Your task to perform on an android device: Check out the new nike air max 2020. Image 0: 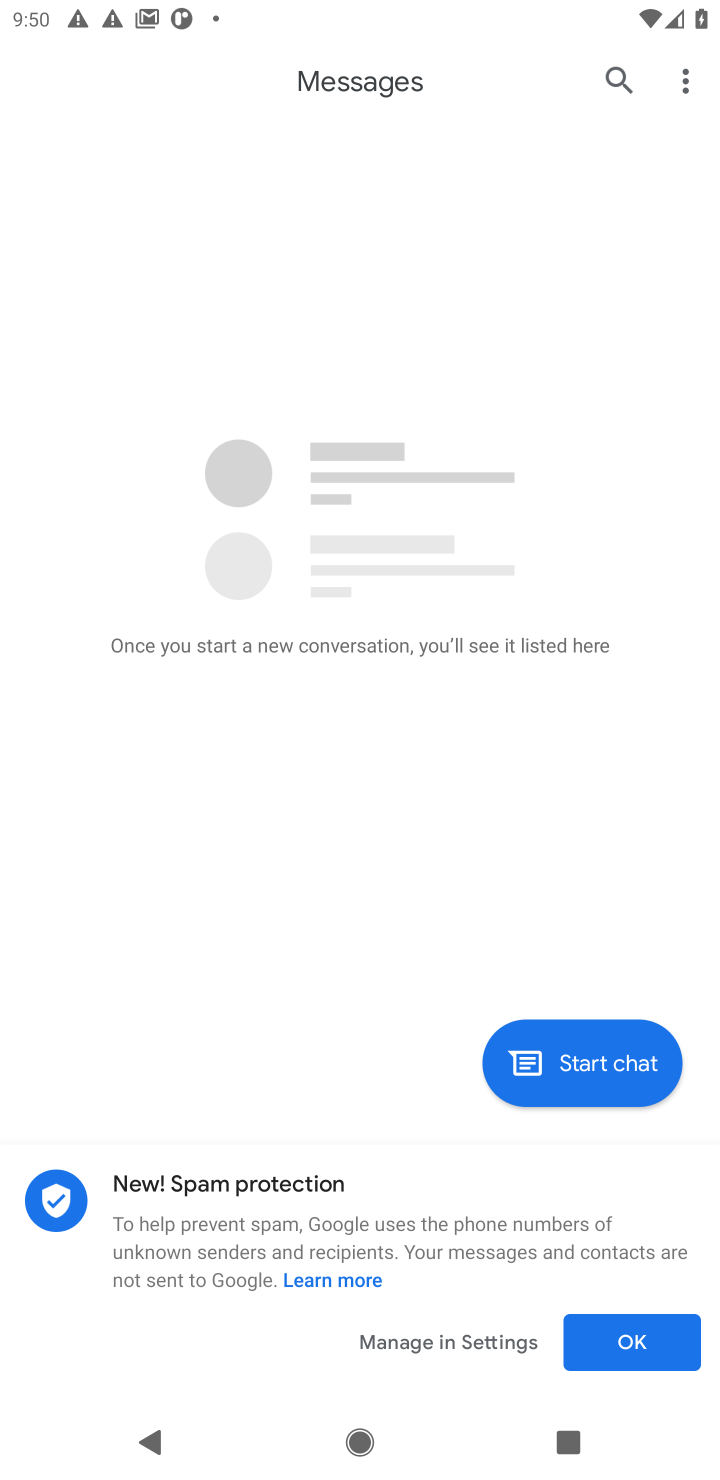
Step 0: press home button
Your task to perform on an android device: Check out the new nike air max 2020. Image 1: 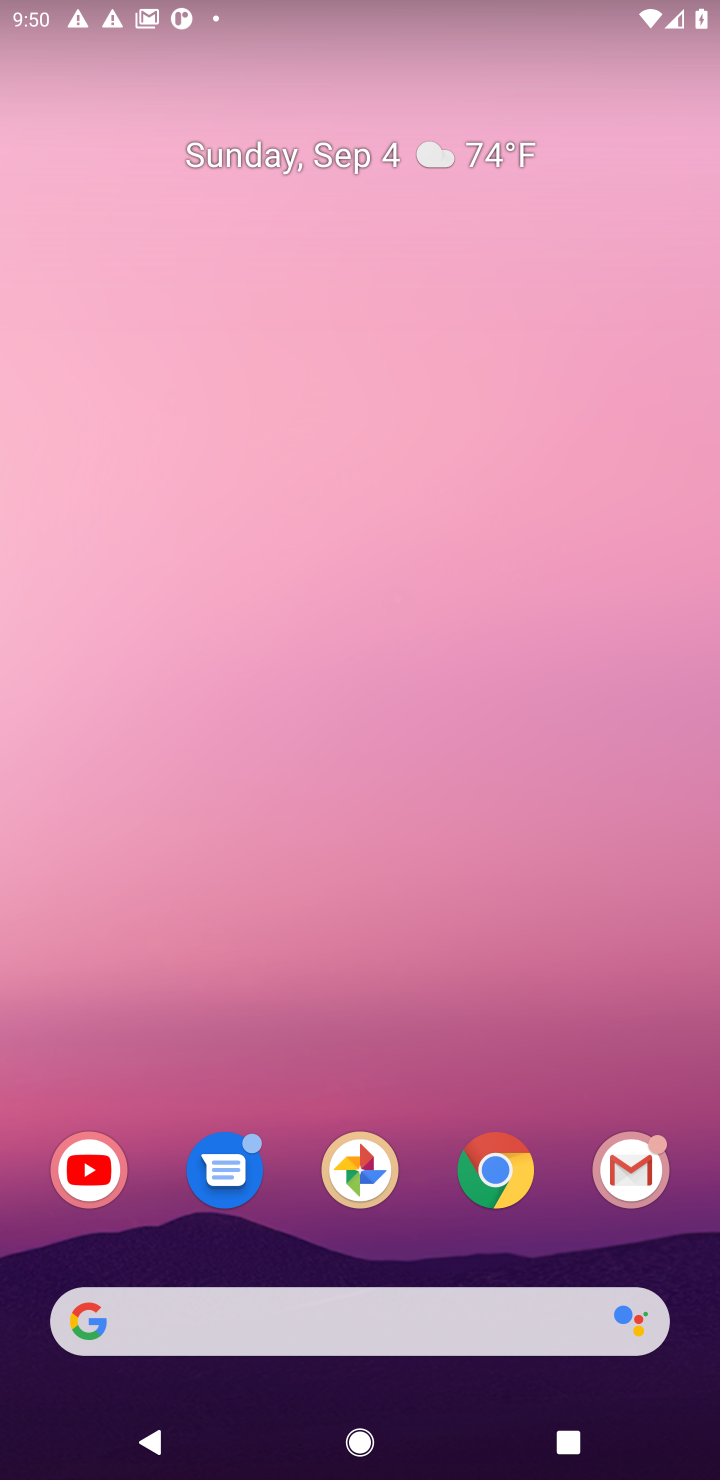
Step 1: click (513, 1176)
Your task to perform on an android device: Check out the new nike air max 2020. Image 2: 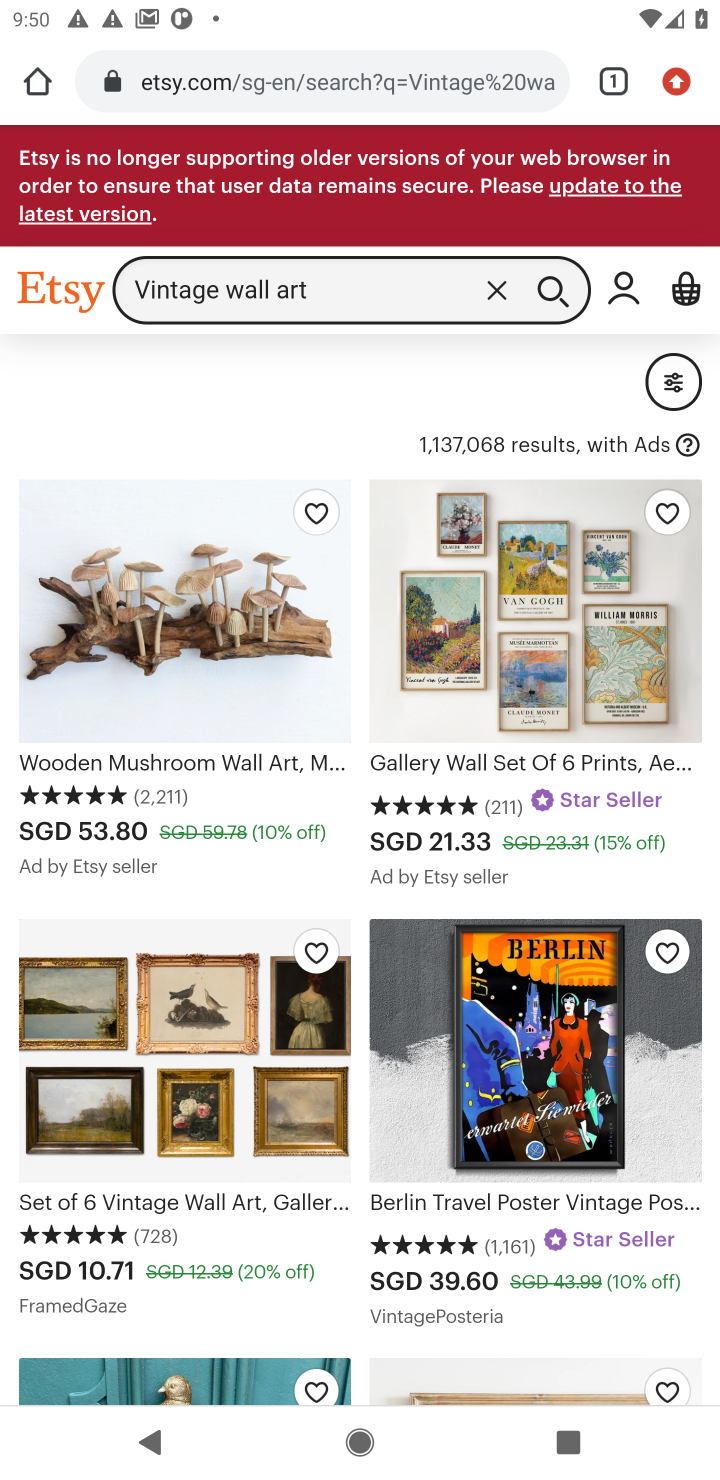
Step 2: click (390, 74)
Your task to perform on an android device: Check out the new nike air max 2020. Image 3: 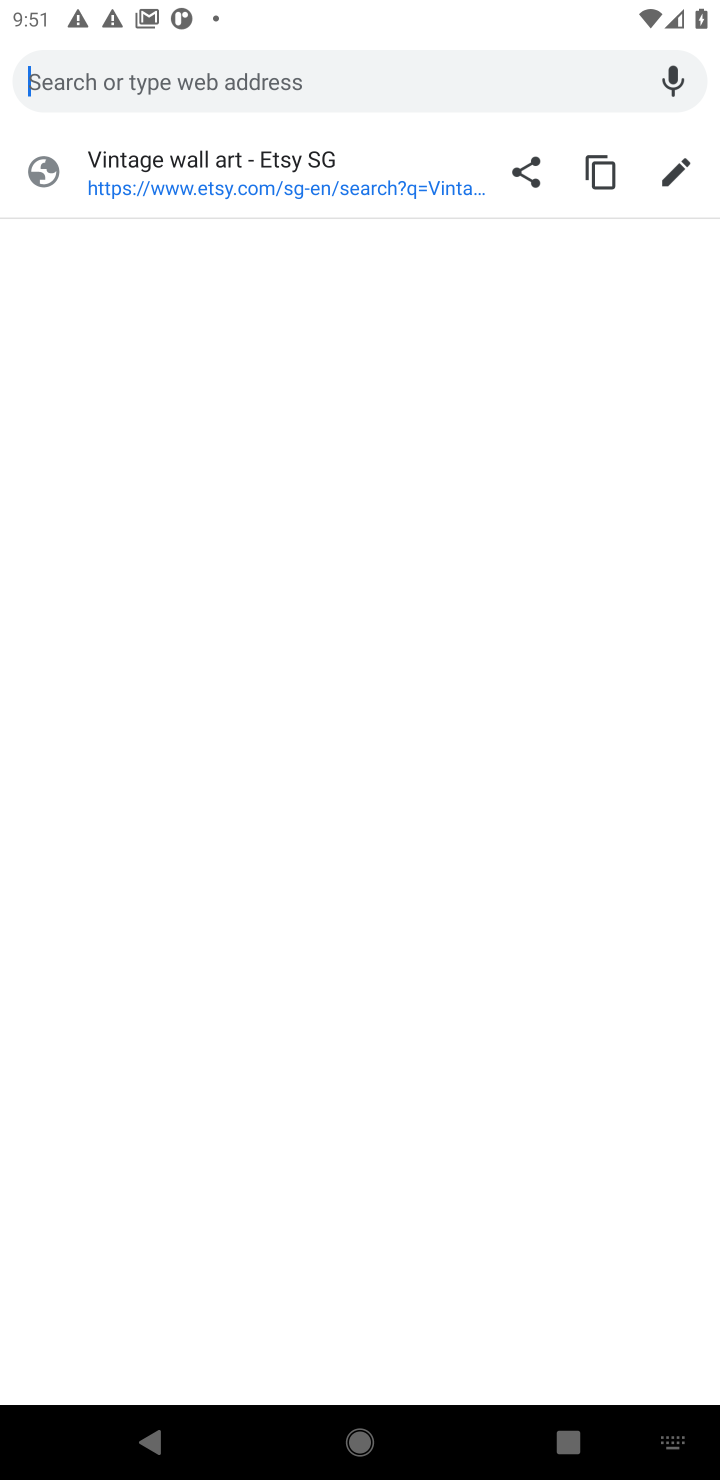
Step 3: type "the new nike air max 2020"
Your task to perform on an android device: Check out the new nike air max 2020. Image 4: 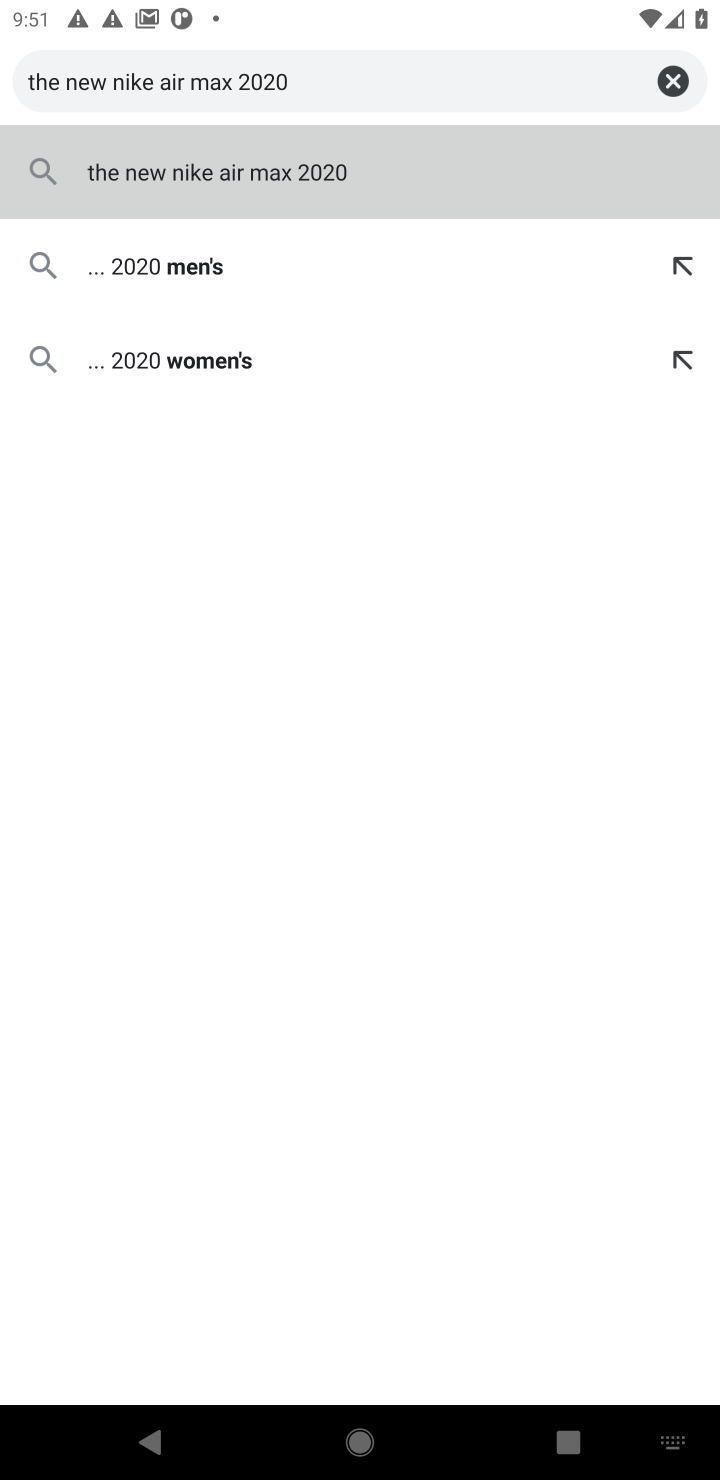
Step 4: type "the new nike air max 2020"
Your task to perform on an android device: Check out the new nike air max 2020. Image 5: 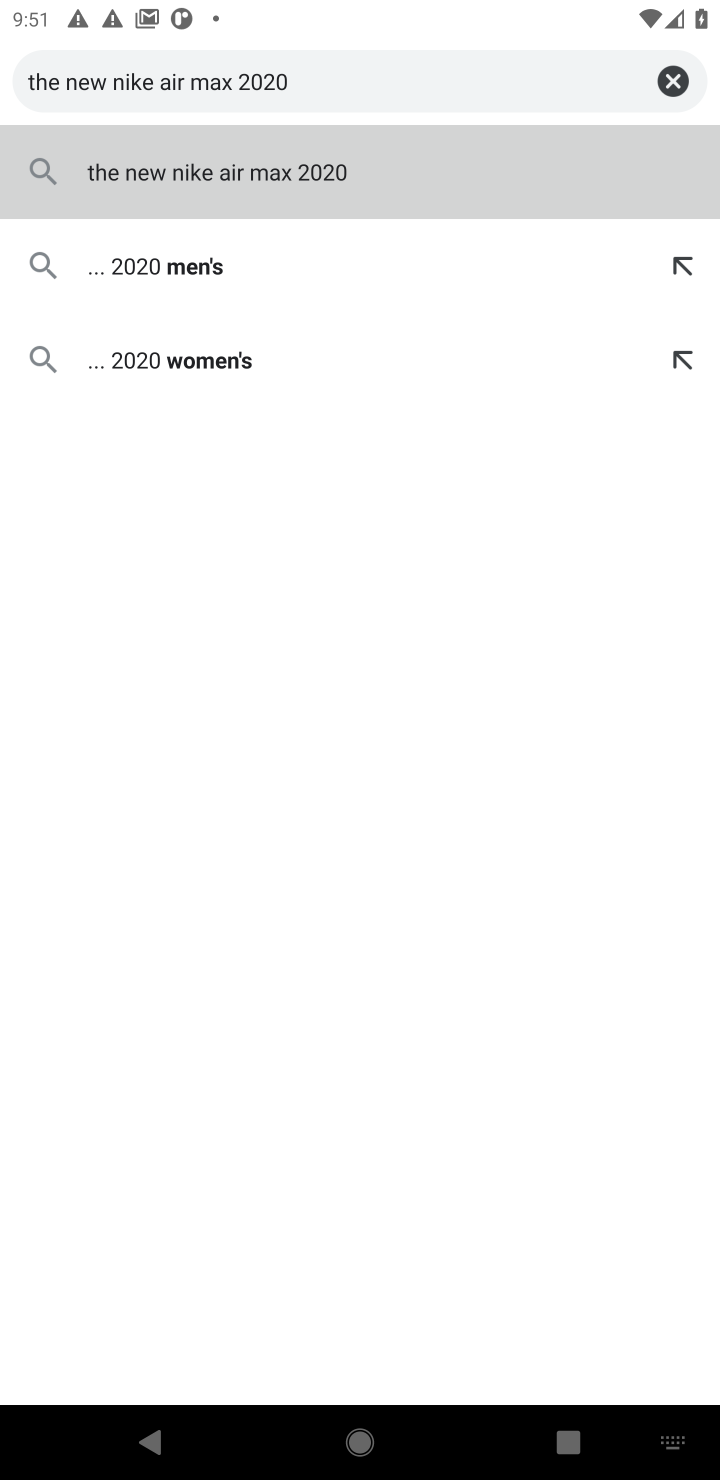
Step 5: click (311, 166)
Your task to perform on an android device: Check out the new nike air max 2020. Image 6: 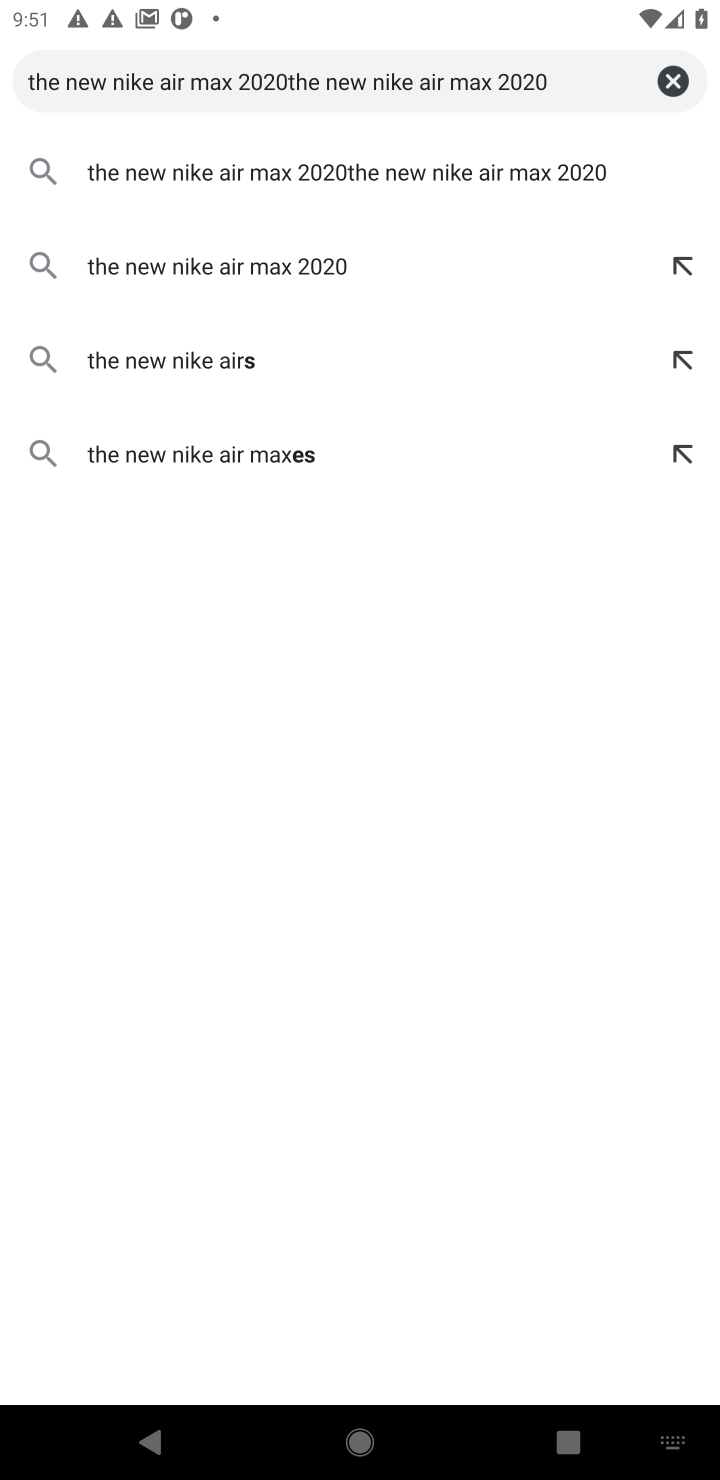
Step 6: click (309, 171)
Your task to perform on an android device: Check out the new nike air max 2020. Image 7: 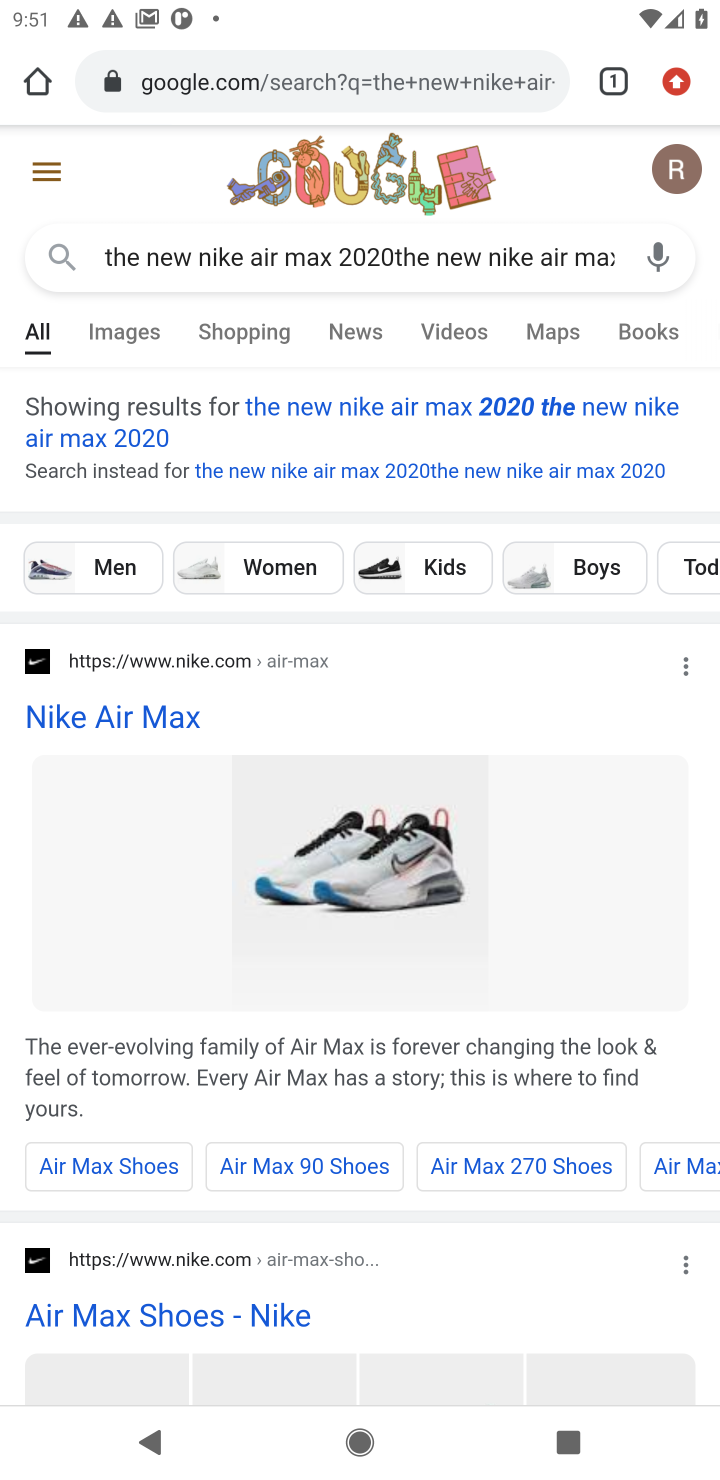
Step 7: task complete